Your task to perform on an android device: turn smart compose on in the gmail app Image 0: 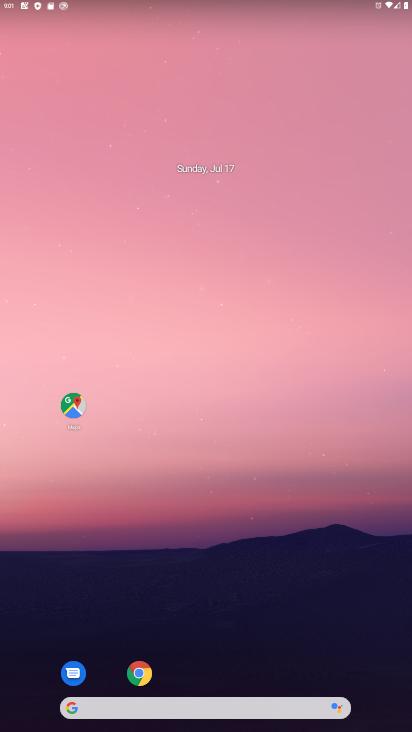
Step 0: drag from (306, 635) to (55, 0)
Your task to perform on an android device: turn smart compose on in the gmail app Image 1: 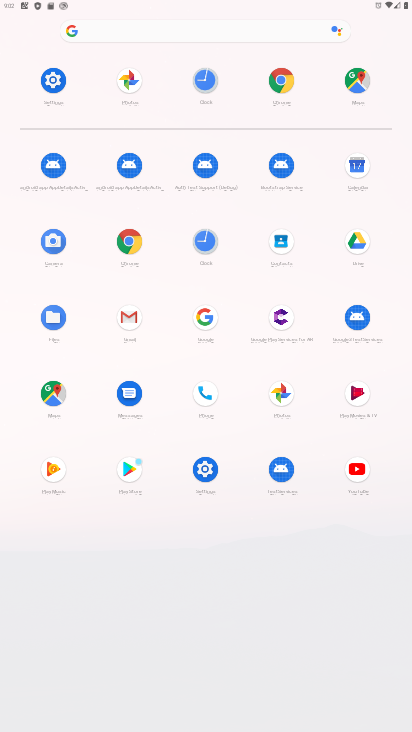
Step 1: click (133, 316)
Your task to perform on an android device: turn smart compose on in the gmail app Image 2: 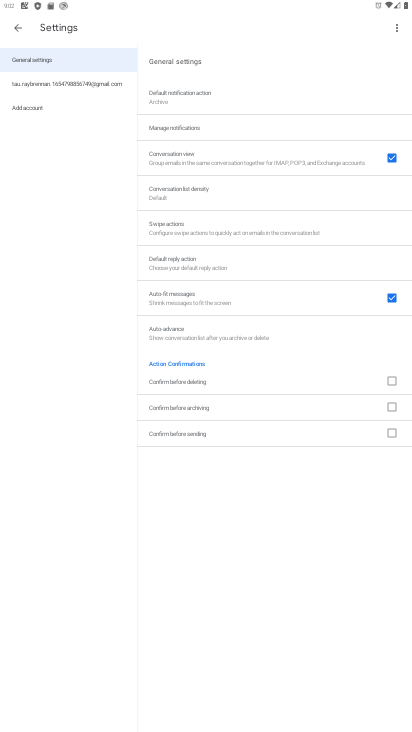
Step 2: task complete